Your task to perform on an android device: allow notifications from all sites in the chrome app Image 0: 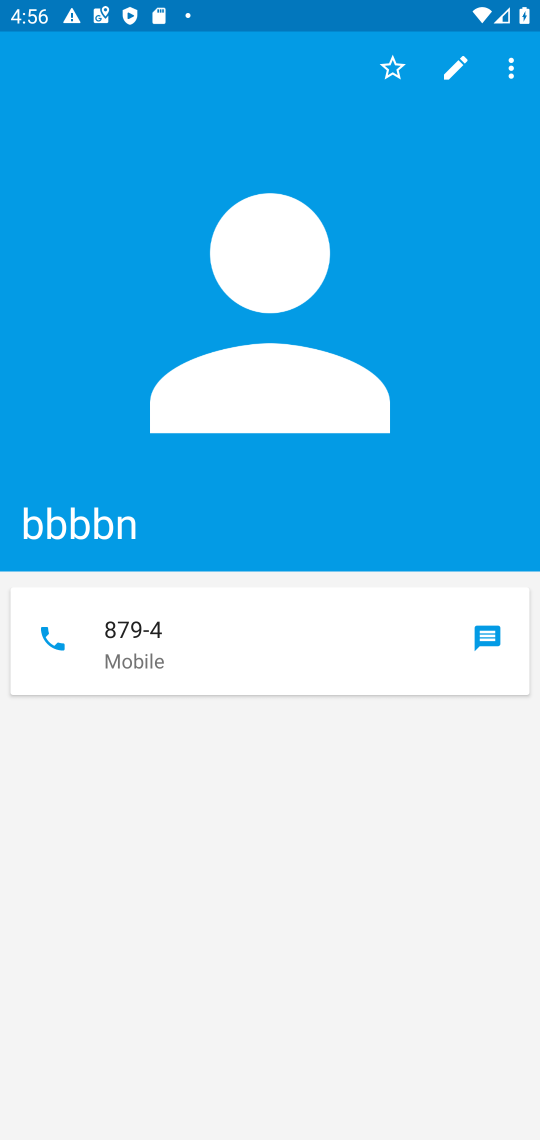
Step 0: press home button
Your task to perform on an android device: allow notifications from all sites in the chrome app Image 1: 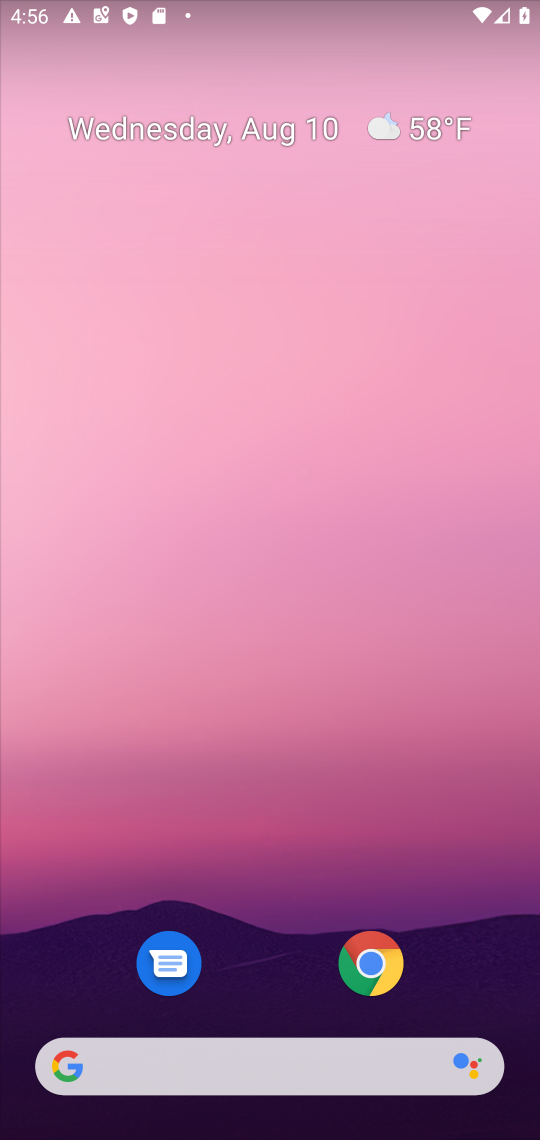
Step 1: drag from (269, 995) to (378, 219)
Your task to perform on an android device: allow notifications from all sites in the chrome app Image 2: 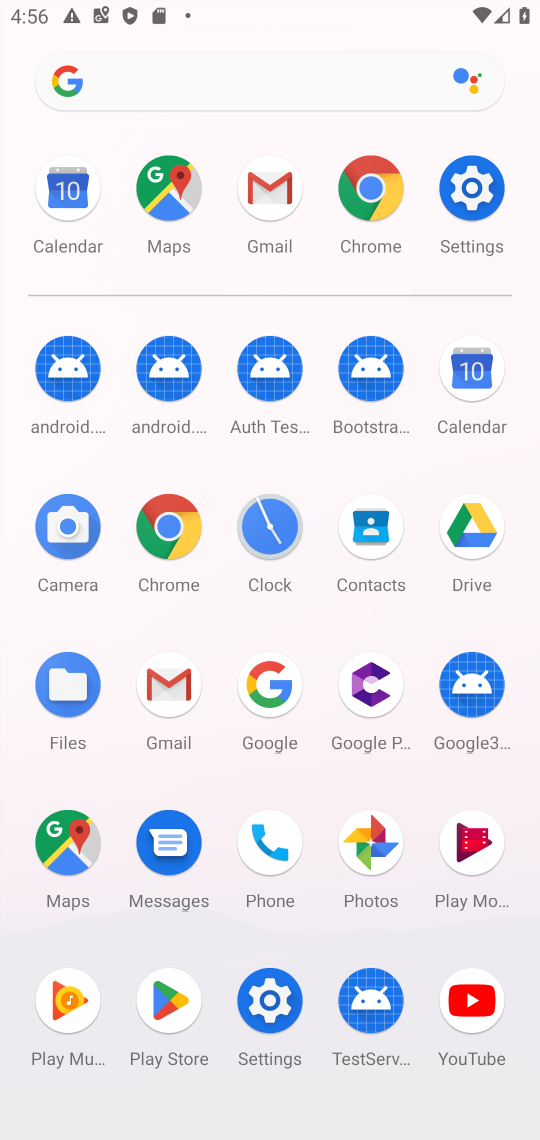
Step 2: click (176, 527)
Your task to perform on an android device: allow notifications from all sites in the chrome app Image 3: 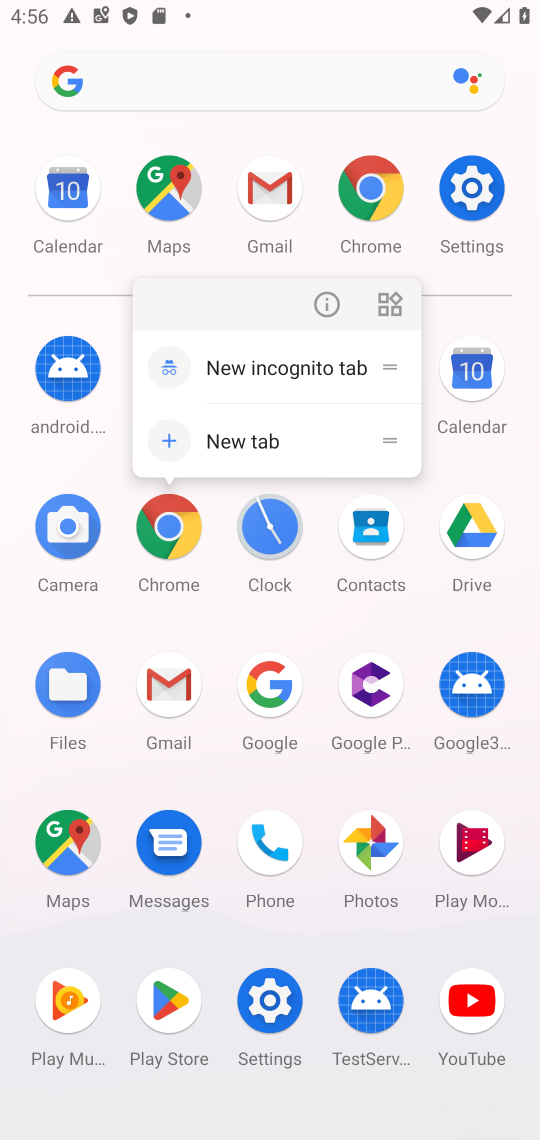
Step 3: click (168, 548)
Your task to perform on an android device: allow notifications from all sites in the chrome app Image 4: 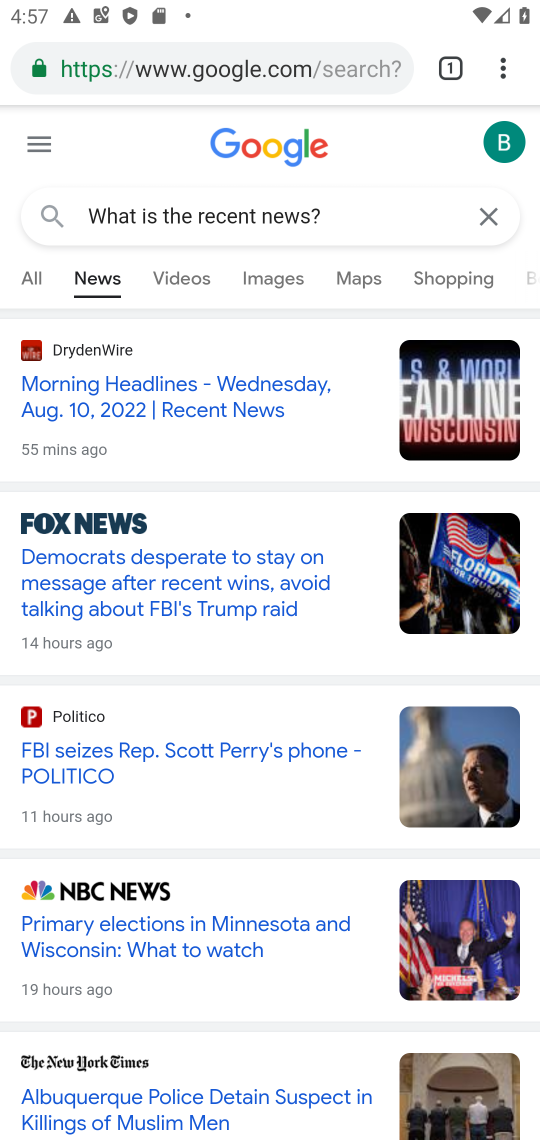
Step 4: task complete